Your task to perform on an android device: Open accessibility settings Image 0: 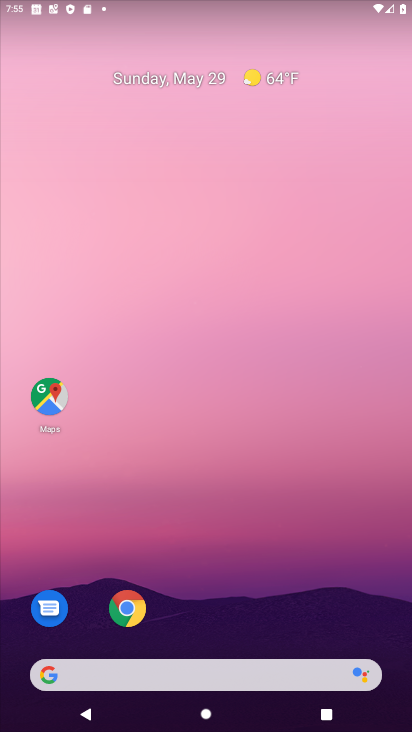
Step 0: drag from (265, 577) to (161, 9)
Your task to perform on an android device: Open accessibility settings Image 1: 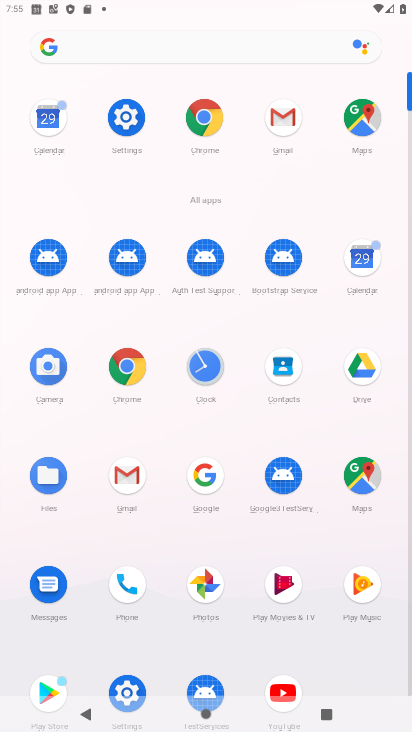
Step 1: click (118, 117)
Your task to perform on an android device: Open accessibility settings Image 2: 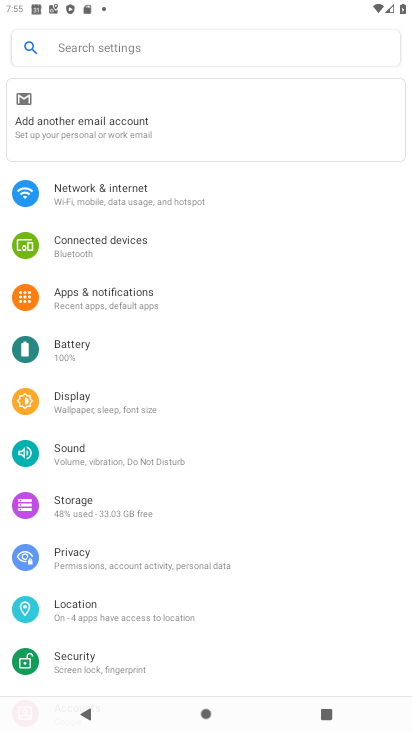
Step 2: drag from (262, 622) to (236, 273)
Your task to perform on an android device: Open accessibility settings Image 3: 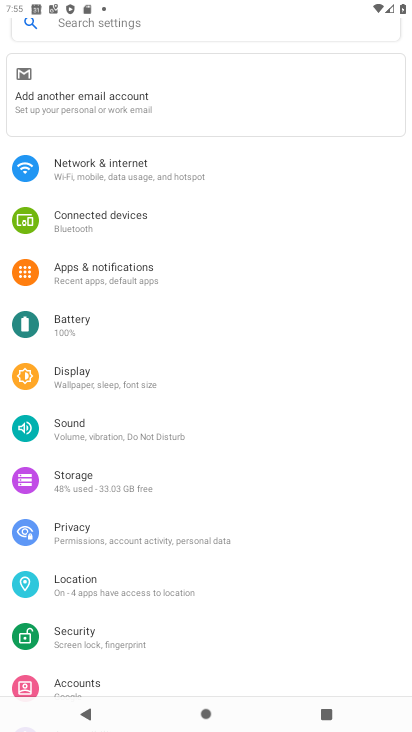
Step 3: drag from (241, 596) to (224, 274)
Your task to perform on an android device: Open accessibility settings Image 4: 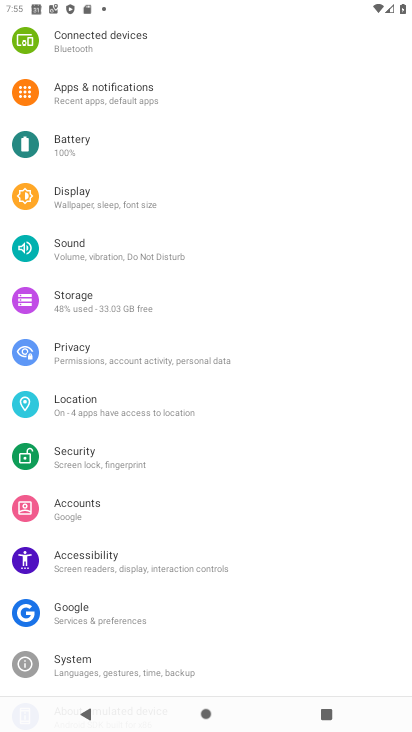
Step 4: click (87, 554)
Your task to perform on an android device: Open accessibility settings Image 5: 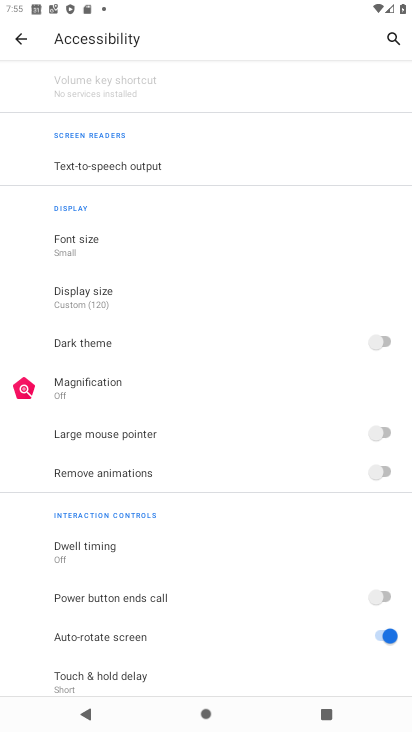
Step 5: task complete